Your task to perform on an android device: move an email to a new category in the gmail app Image 0: 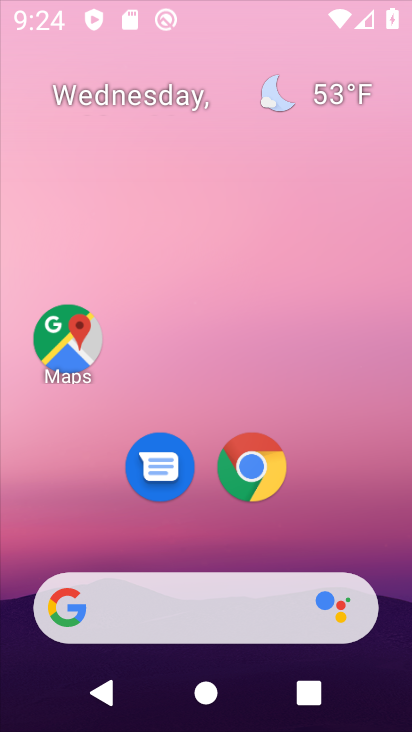
Step 0: press home button
Your task to perform on an android device: move an email to a new category in the gmail app Image 1: 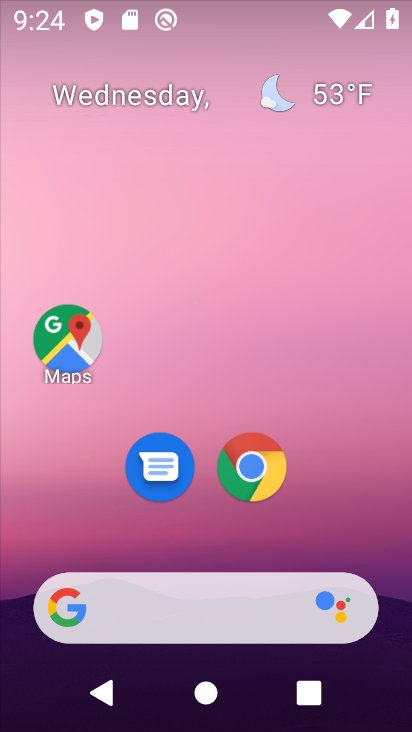
Step 1: press home button
Your task to perform on an android device: move an email to a new category in the gmail app Image 2: 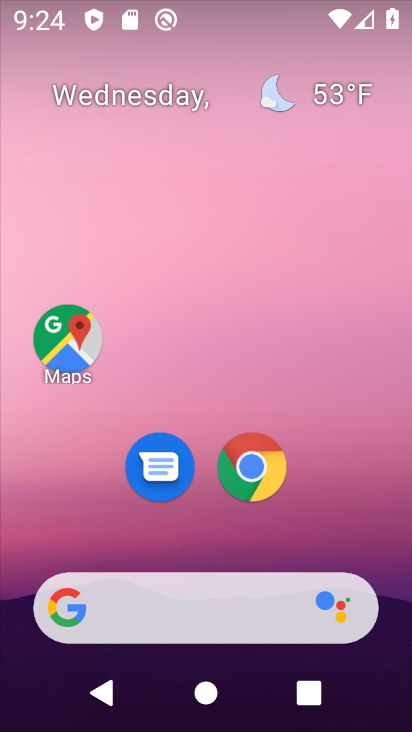
Step 2: drag from (317, 539) to (307, 3)
Your task to perform on an android device: move an email to a new category in the gmail app Image 3: 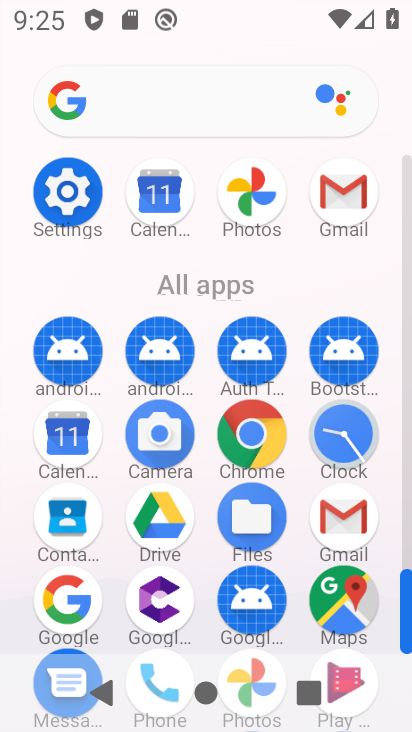
Step 3: click (325, 190)
Your task to perform on an android device: move an email to a new category in the gmail app Image 4: 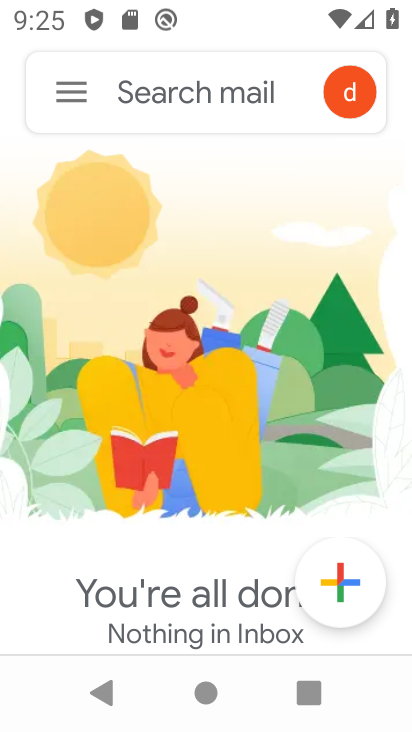
Step 4: drag from (371, 273) to (46, 276)
Your task to perform on an android device: move an email to a new category in the gmail app Image 5: 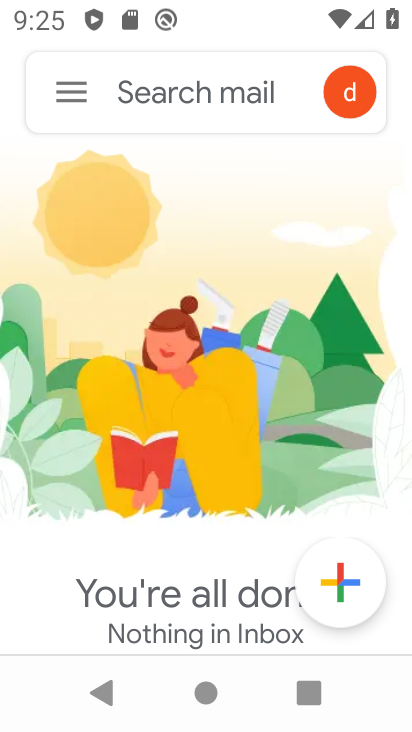
Step 5: click (64, 88)
Your task to perform on an android device: move an email to a new category in the gmail app Image 6: 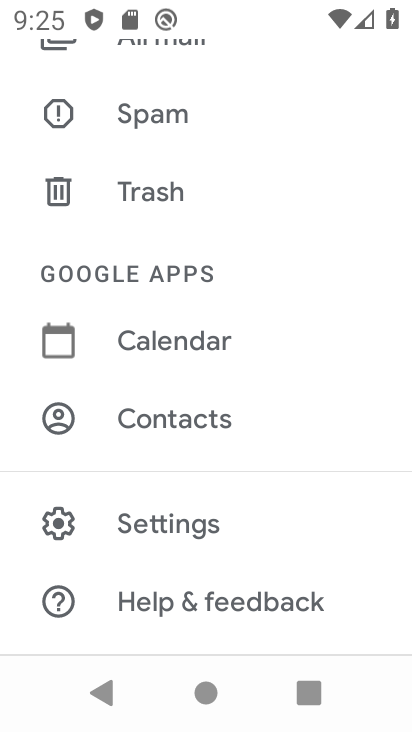
Step 6: task complete